Your task to perform on an android device: turn off sleep mode Image 0: 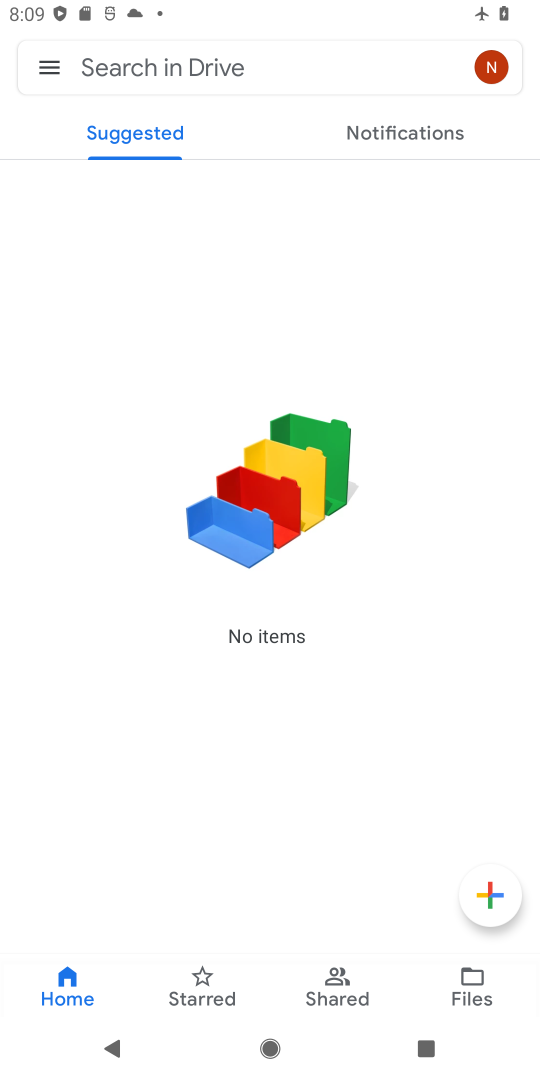
Step 0: press home button
Your task to perform on an android device: turn off sleep mode Image 1: 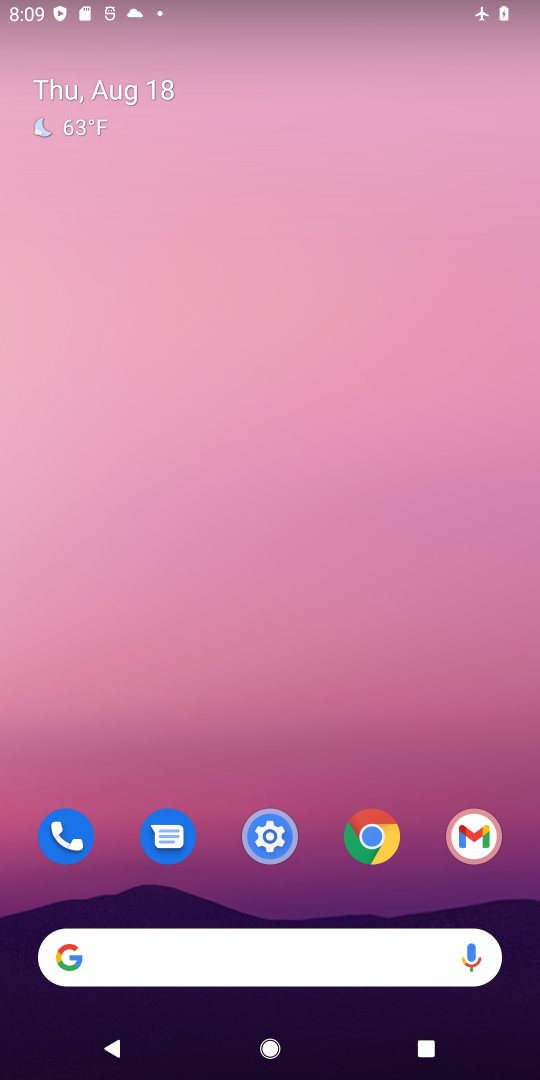
Step 1: drag from (321, 748) to (335, 150)
Your task to perform on an android device: turn off sleep mode Image 2: 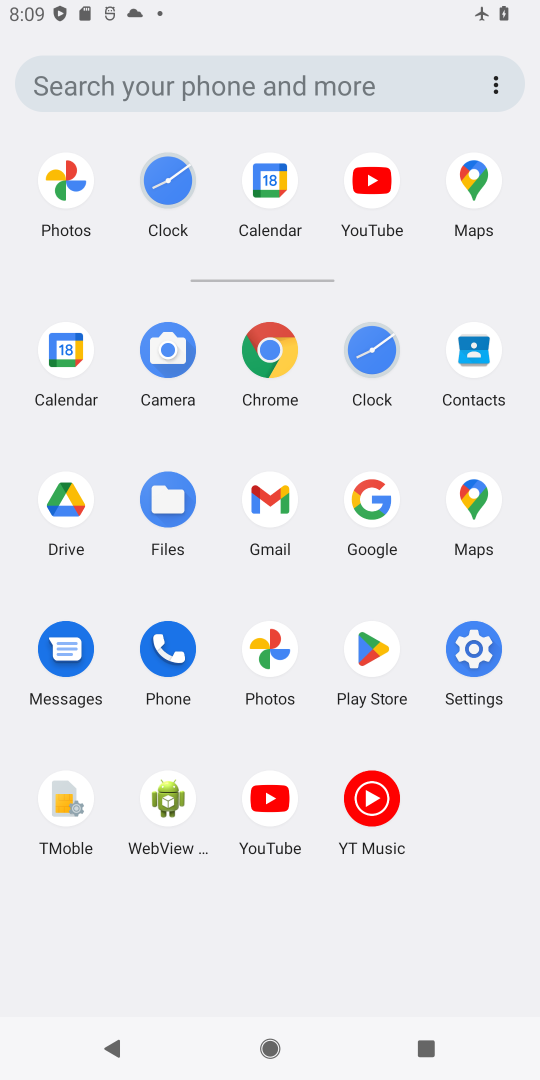
Step 2: click (479, 654)
Your task to perform on an android device: turn off sleep mode Image 3: 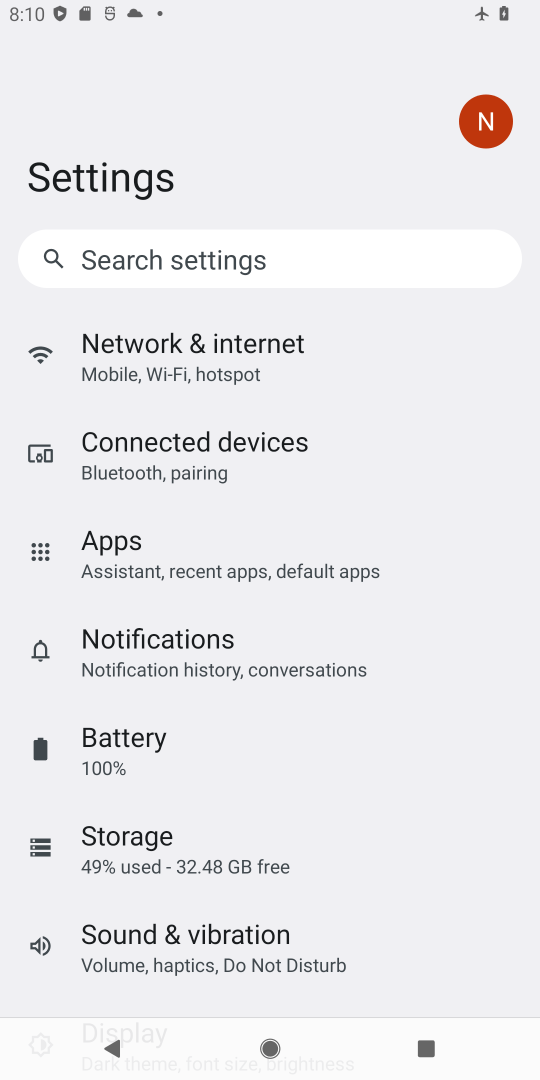
Step 3: drag from (297, 890) to (330, 410)
Your task to perform on an android device: turn off sleep mode Image 4: 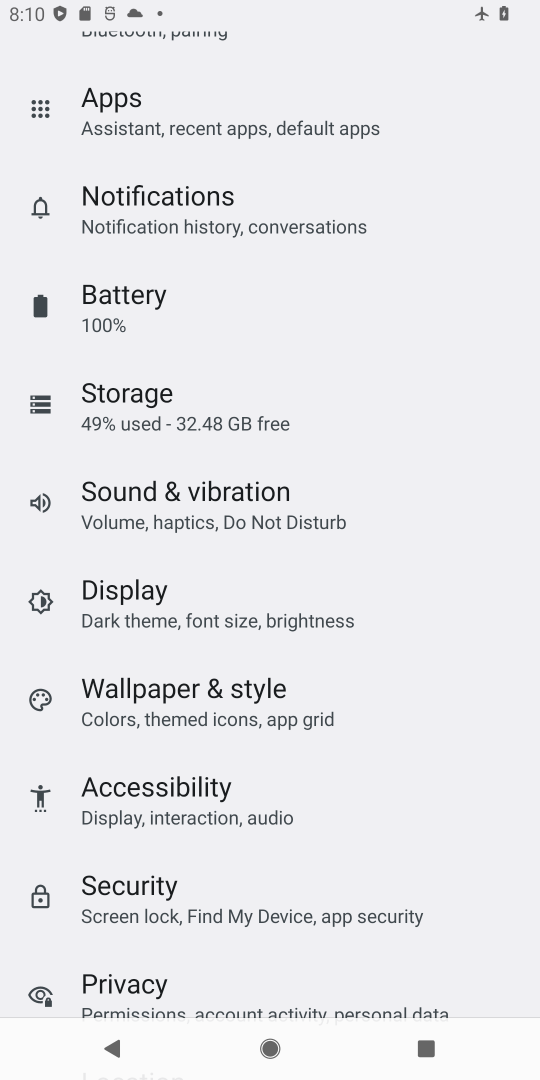
Step 4: drag from (410, 322) to (448, 995)
Your task to perform on an android device: turn off sleep mode Image 5: 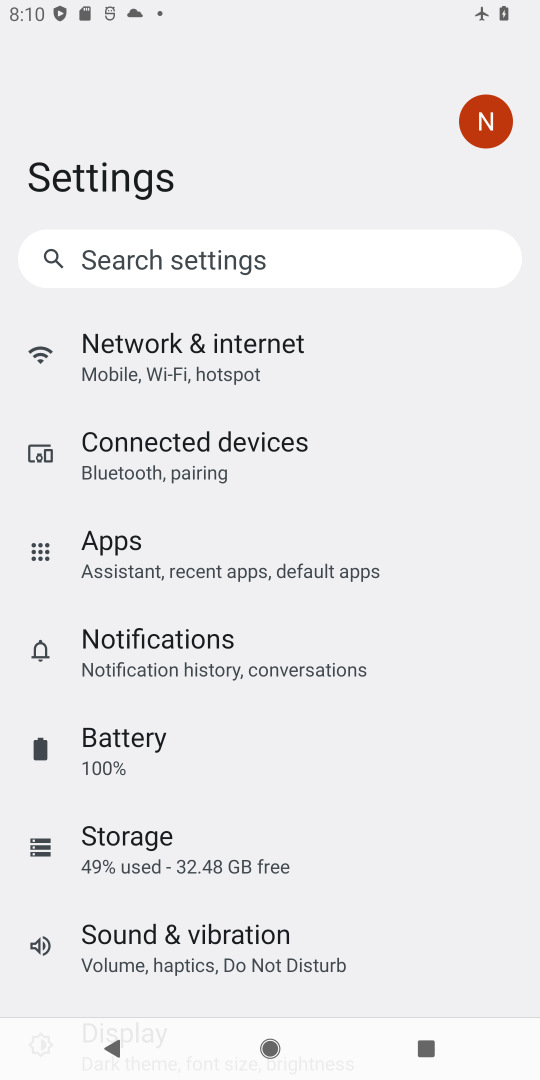
Step 5: drag from (361, 847) to (465, 350)
Your task to perform on an android device: turn off sleep mode Image 6: 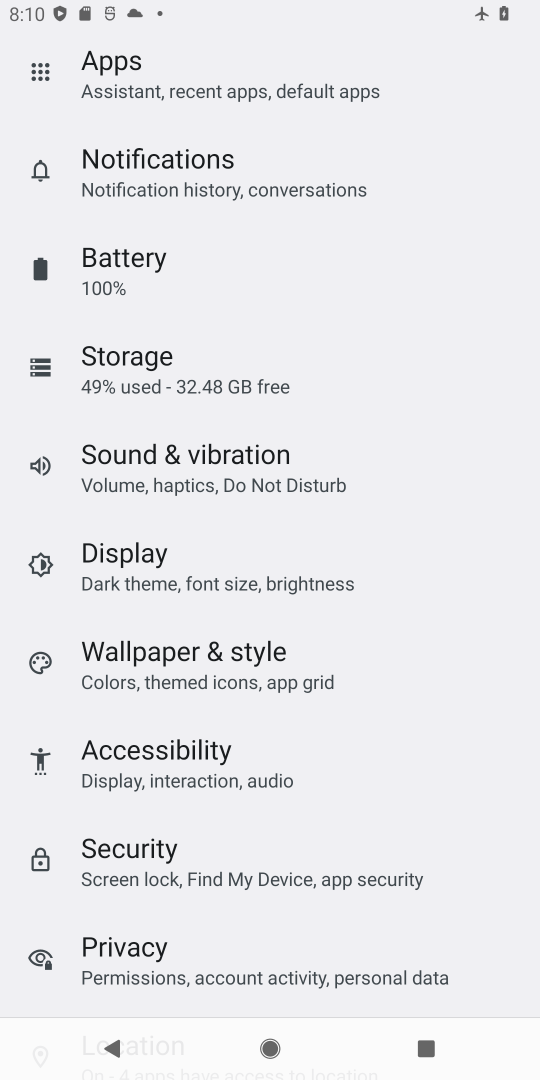
Step 6: click (138, 583)
Your task to perform on an android device: turn off sleep mode Image 7: 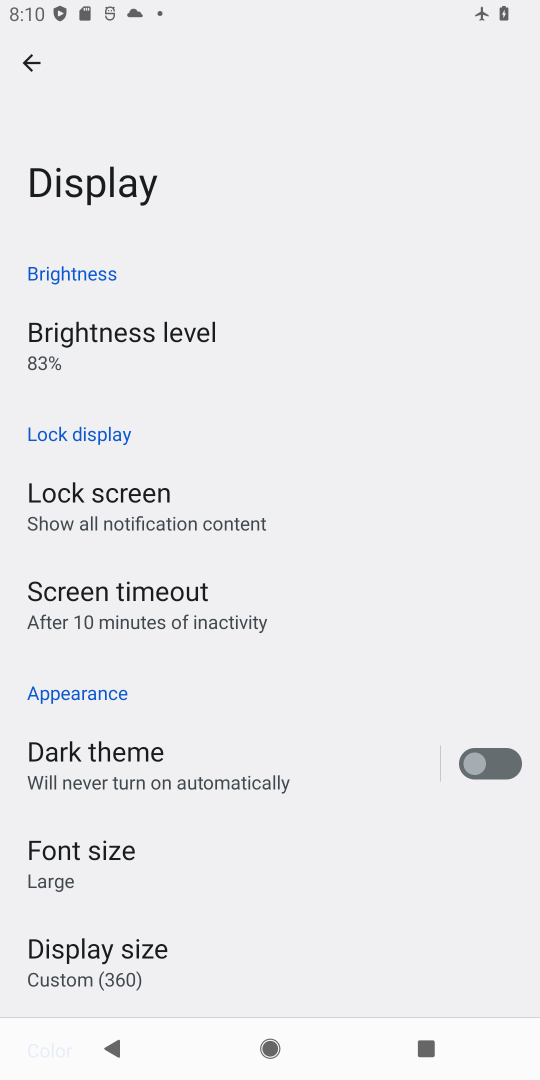
Step 7: click (122, 593)
Your task to perform on an android device: turn off sleep mode Image 8: 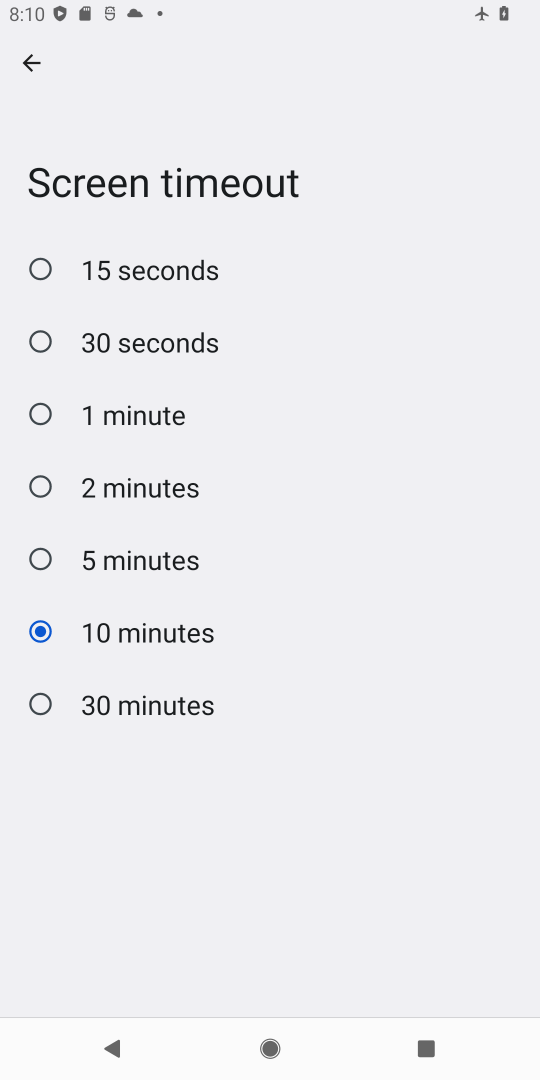
Step 8: task complete